Your task to perform on an android device: turn on wifi Image 0: 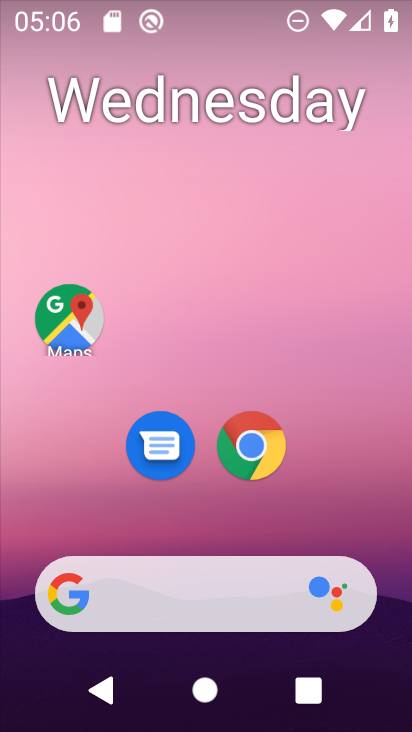
Step 0: drag from (176, 19) to (200, 558)
Your task to perform on an android device: turn on wifi Image 1: 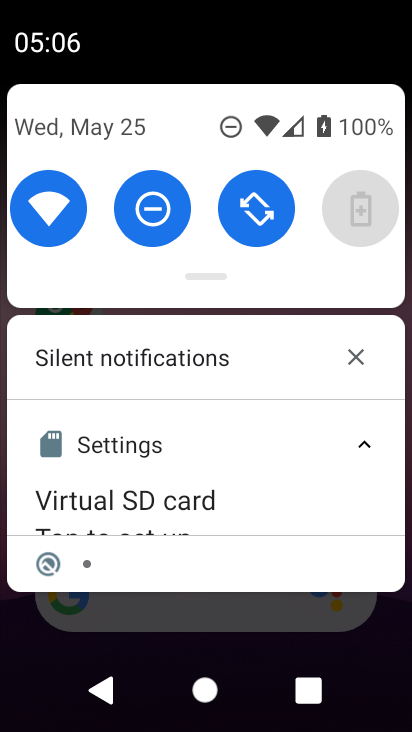
Step 1: task complete